Your task to perform on an android device: Go to sound settings Image 0: 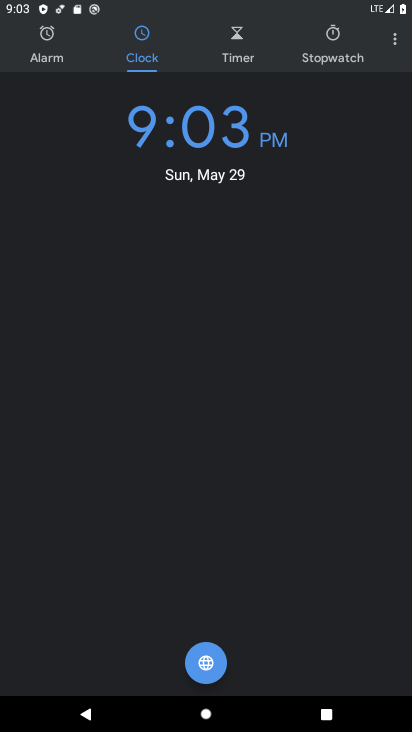
Step 0: press home button
Your task to perform on an android device: Go to sound settings Image 1: 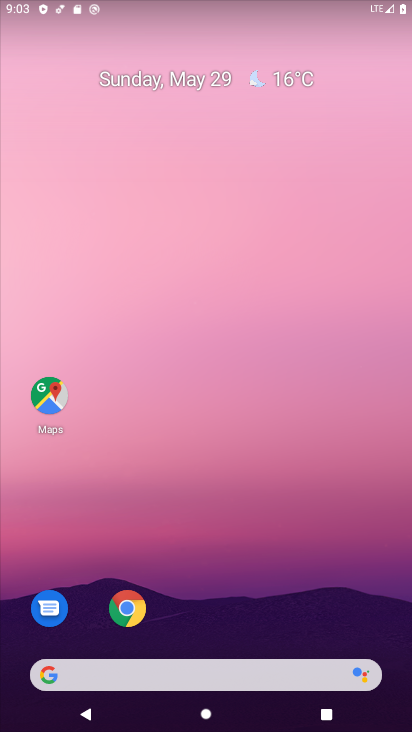
Step 1: drag from (210, 636) to (228, 92)
Your task to perform on an android device: Go to sound settings Image 2: 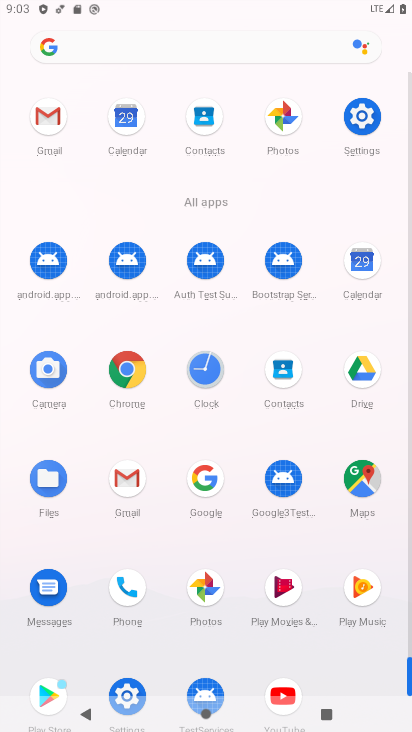
Step 2: click (362, 138)
Your task to perform on an android device: Go to sound settings Image 3: 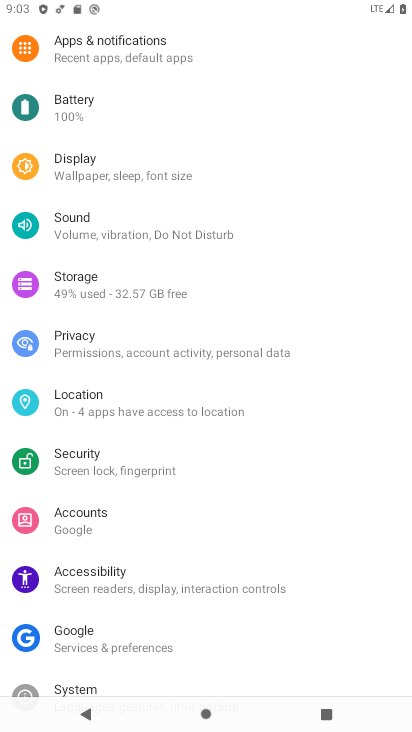
Step 3: click (74, 234)
Your task to perform on an android device: Go to sound settings Image 4: 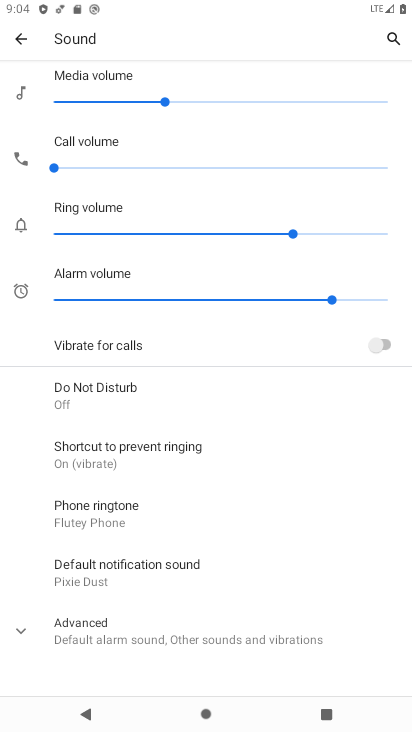
Step 4: task complete